Your task to perform on an android device: toggle priority inbox in the gmail app Image 0: 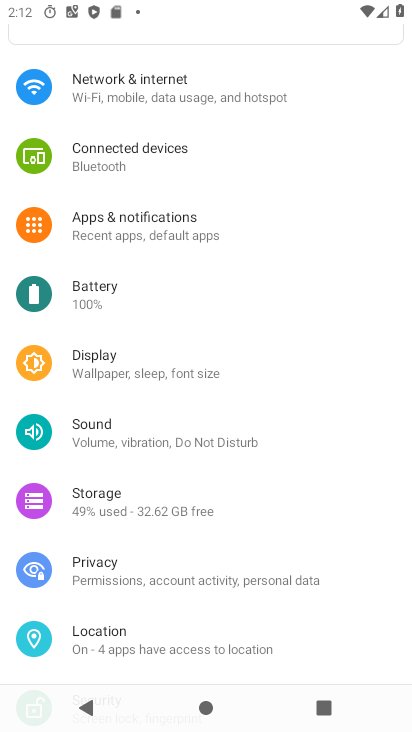
Step 0: press home button
Your task to perform on an android device: toggle priority inbox in the gmail app Image 1: 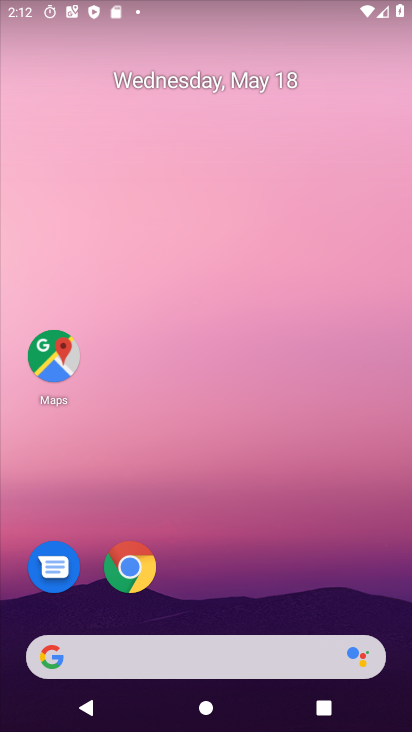
Step 1: drag from (226, 579) to (262, 149)
Your task to perform on an android device: toggle priority inbox in the gmail app Image 2: 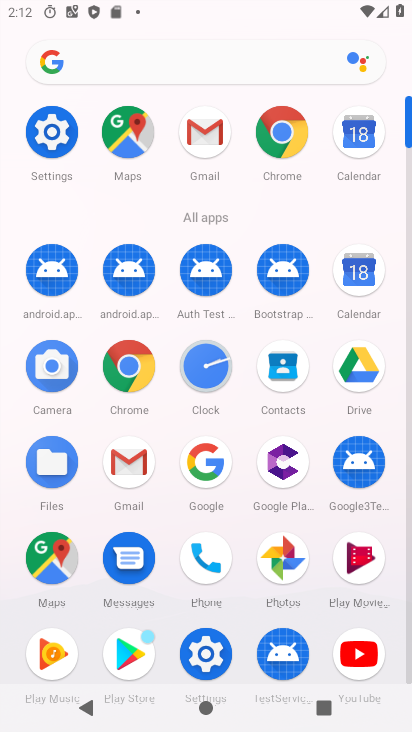
Step 2: click (131, 468)
Your task to perform on an android device: toggle priority inbox in the gmail app Image 3: 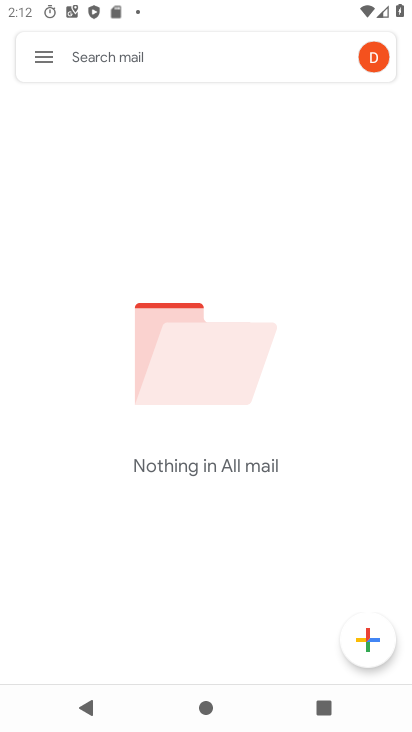
Step 3: click (39, 54)
Your task to perform on an android device: toggle priority inbox in the gmail app Image 4: 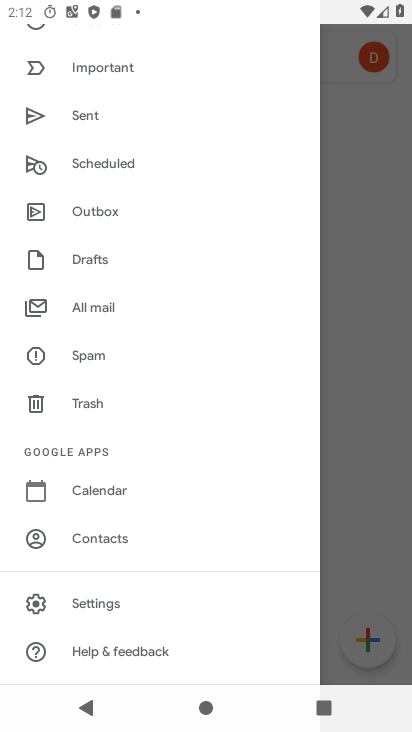
Step 4: click (99, 613)
Your task to perform on an android device: toggle priority inbox in the gmail app Image 5: 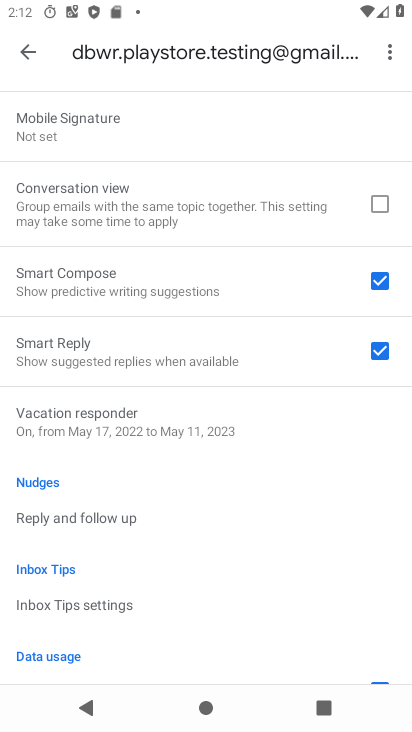
Step 5: drag from (128, 179) to (104, 650)
Your task to perform on an android device: toggle priority inbox in the gmail app Image 6: 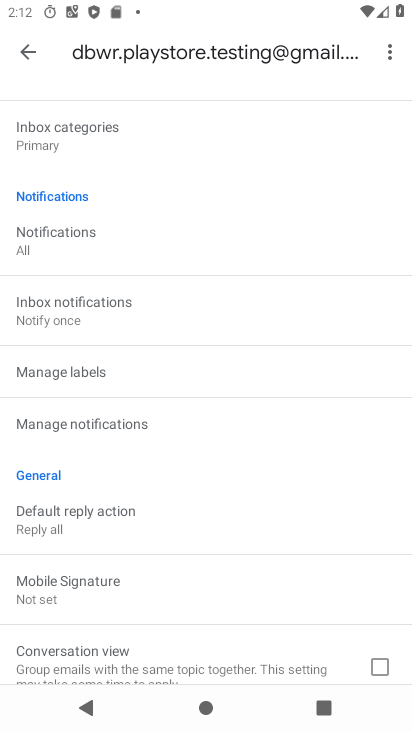
Step 6: drag from (90, 191) to (126, 511)
Your task to perform on an android device: toggle priority inbox in the gmail app Image 7: 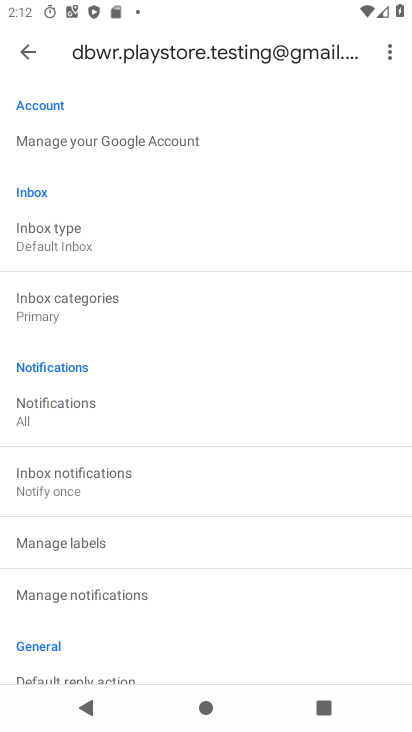
Step 7: click (40, 240)
Your task to perform on an android device: toggle priority inbox in the gmail app Image 8: 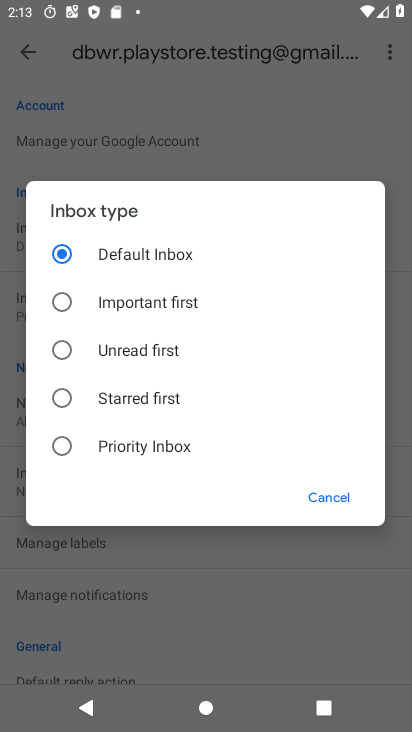
Step 8: click (114, 447)
Your task to perform on an android device: toggle priority inbox in the gmail app Image 9: 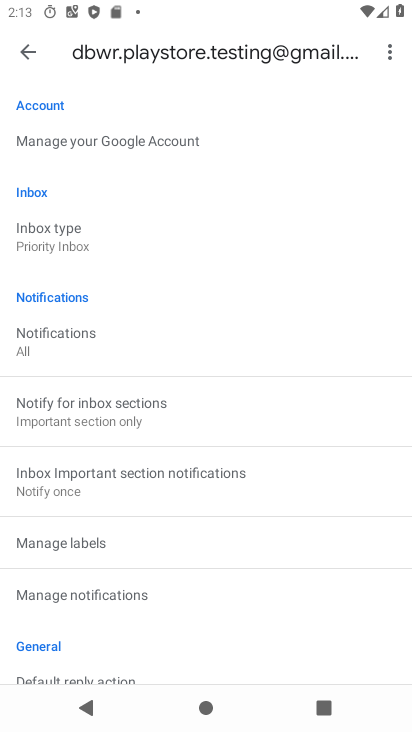
Step 9: task complete